Your task to perform on an android device: Show the shopping cart on newegg. Image 0: 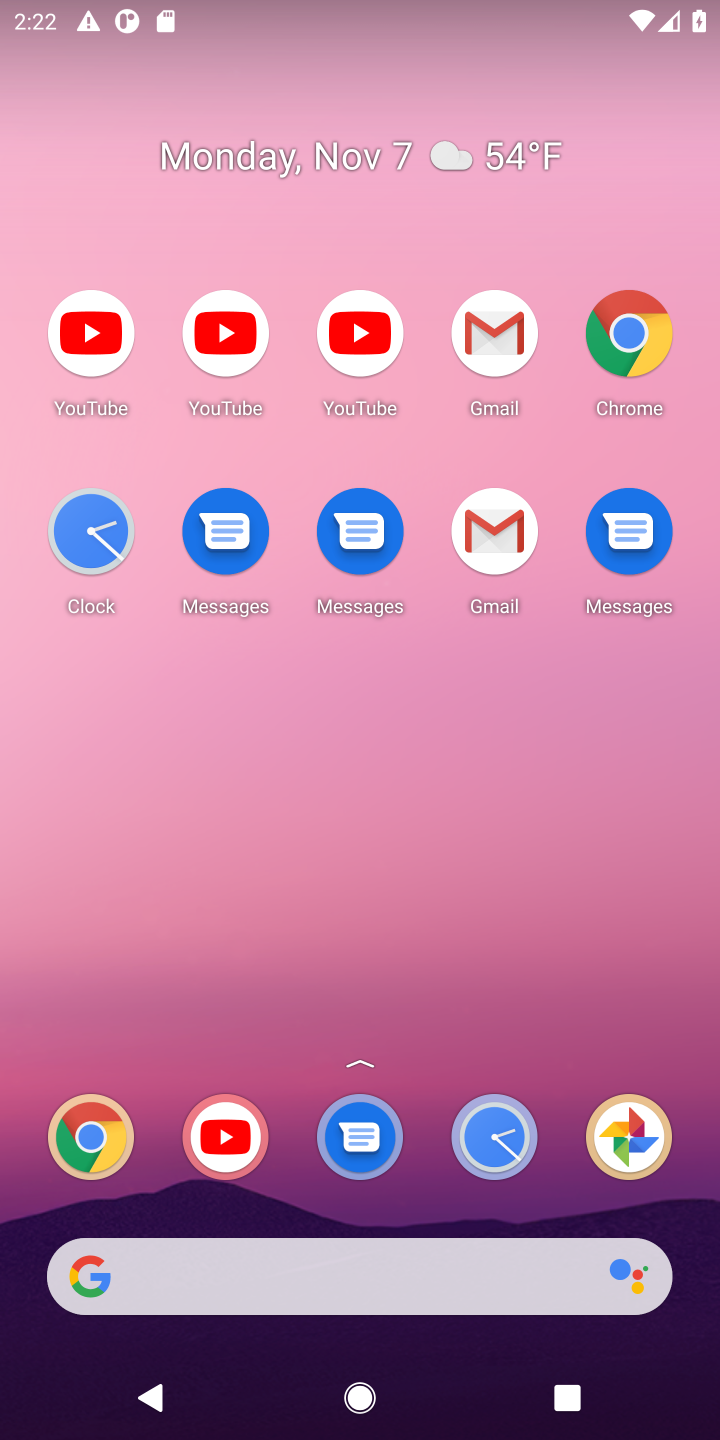
Step 0: drag from (415, 1153) to (412, 233)
Your task to perform on an android device: Show the shopping cart on newegg. Image 1: 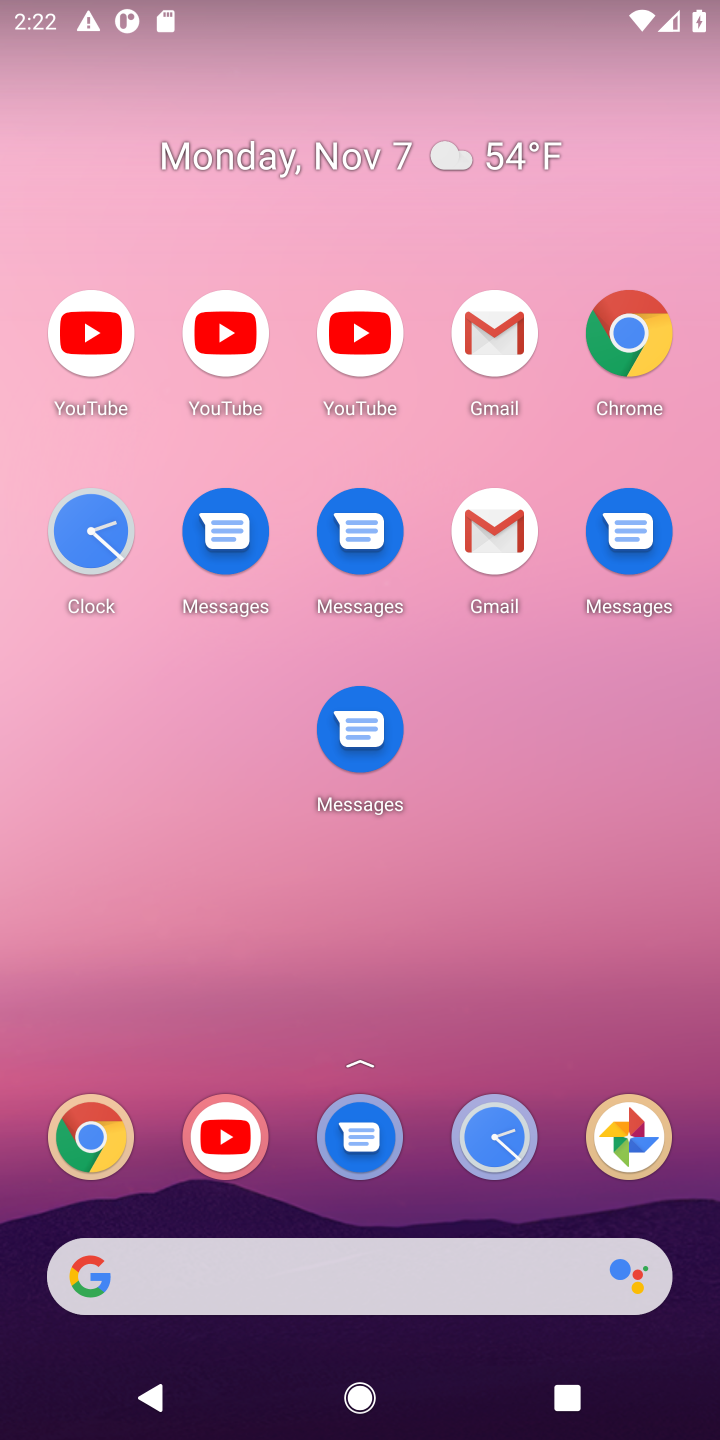
Step 1: drag from (363, 738) to (313, 110)
Your task to perform on an android device: Show the shopping cart on newegg. Image 2: 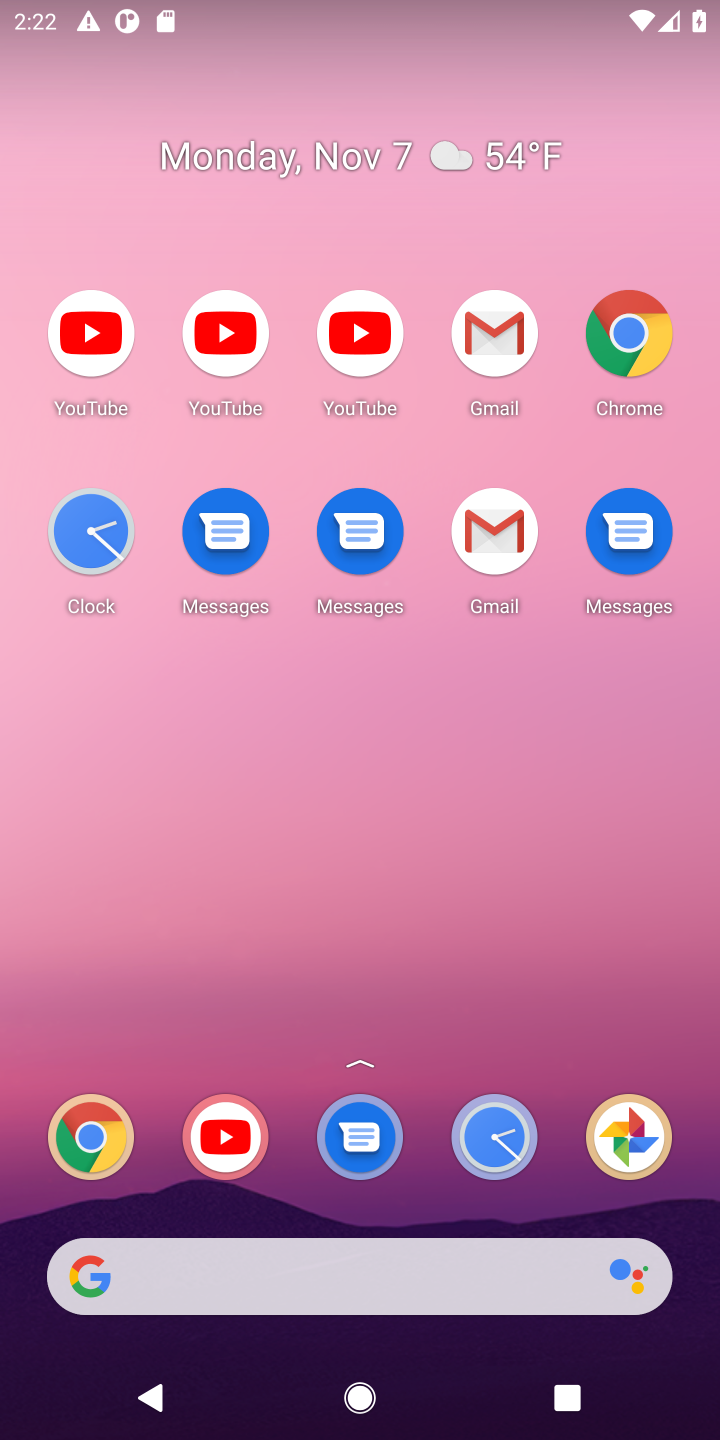
Step 2: drag from (431, 1190) to (414, 261)
Your task to perform on an android device: Show the shopping cart on newegg. Image 3: 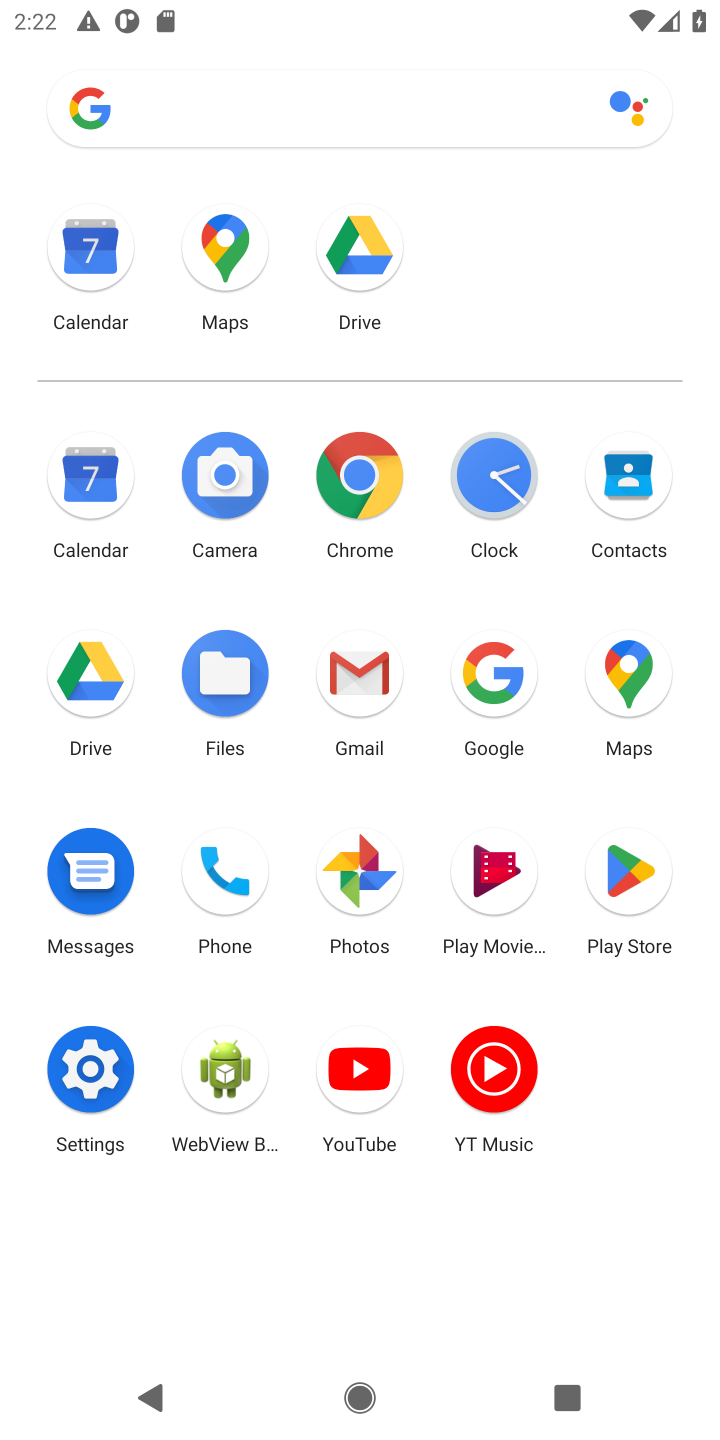
Step 3: click (354, 475)
Your task to perform on an android device: Show the shopping cart on newegg. Image 4: 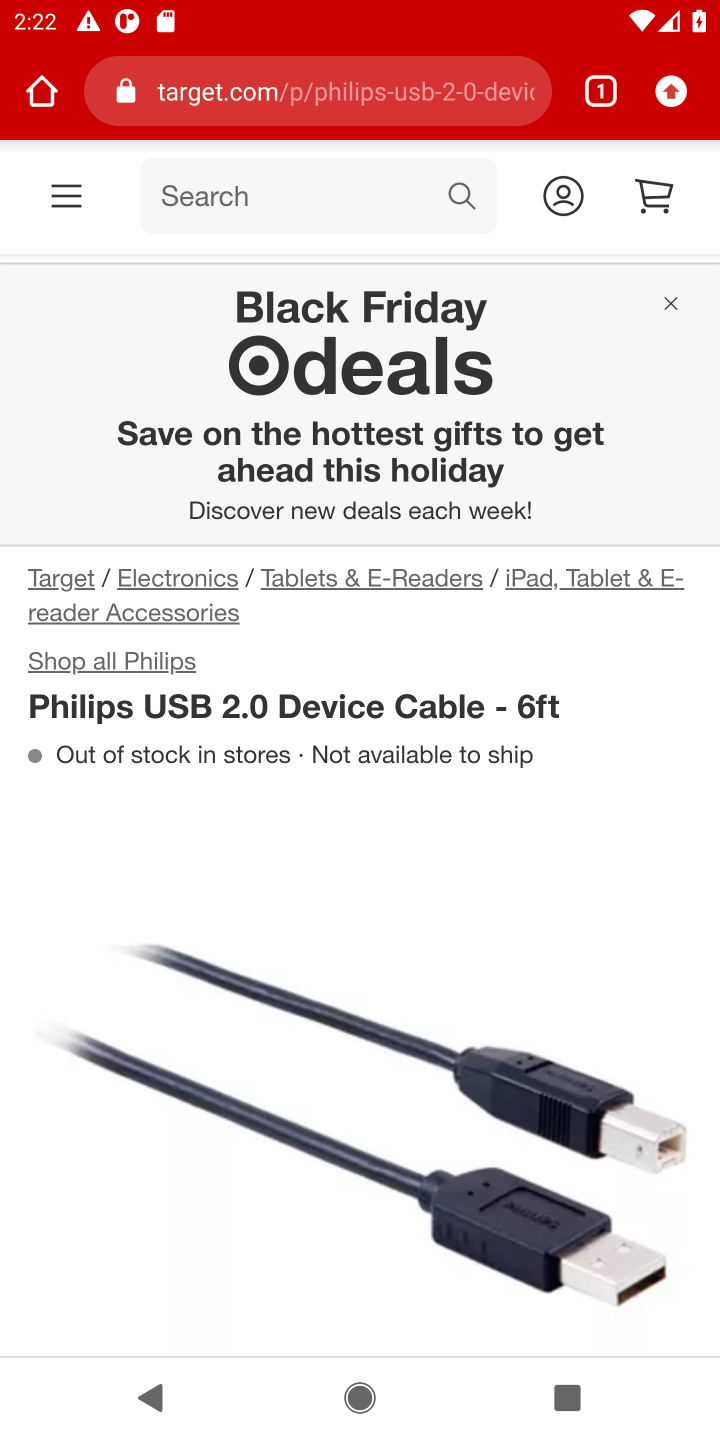
Step 4: click (430, 104)
Your task to perform on an android device: Show the shopping cart on newegg. Image 5: 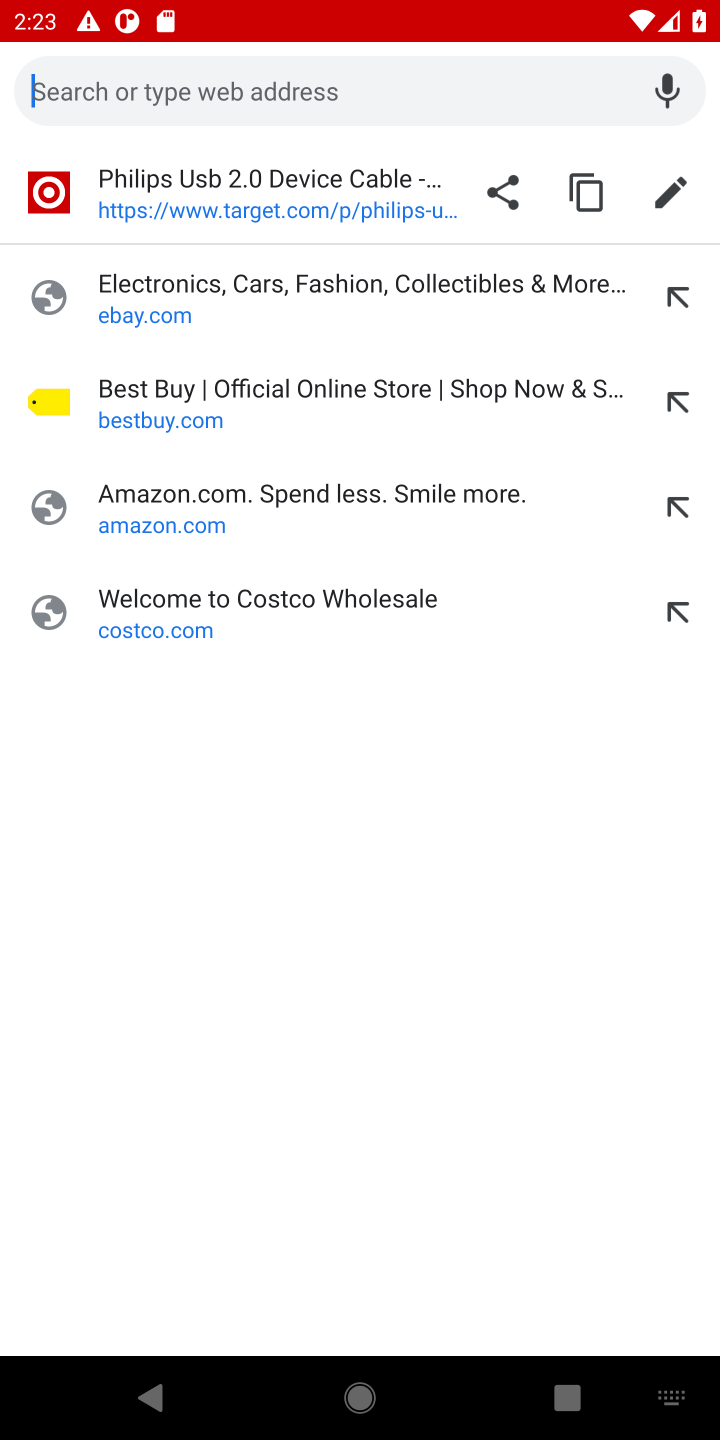
Step 5: type "newegg.com"
Your task to perform on an android device: Show the shopping cart on newegg. Image 6: 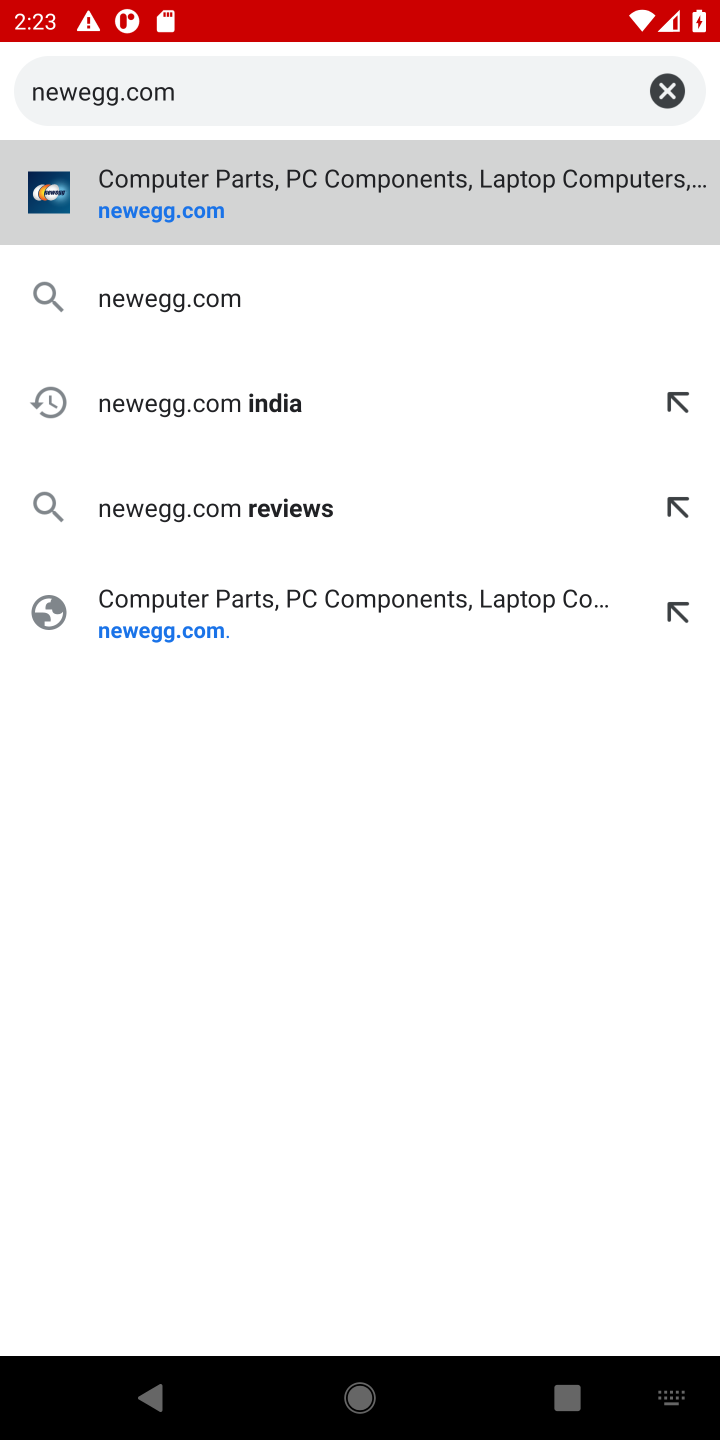
Step 6: press enter
Your task to perform on an android device: Show the shopping cart on newegg. Image 7: 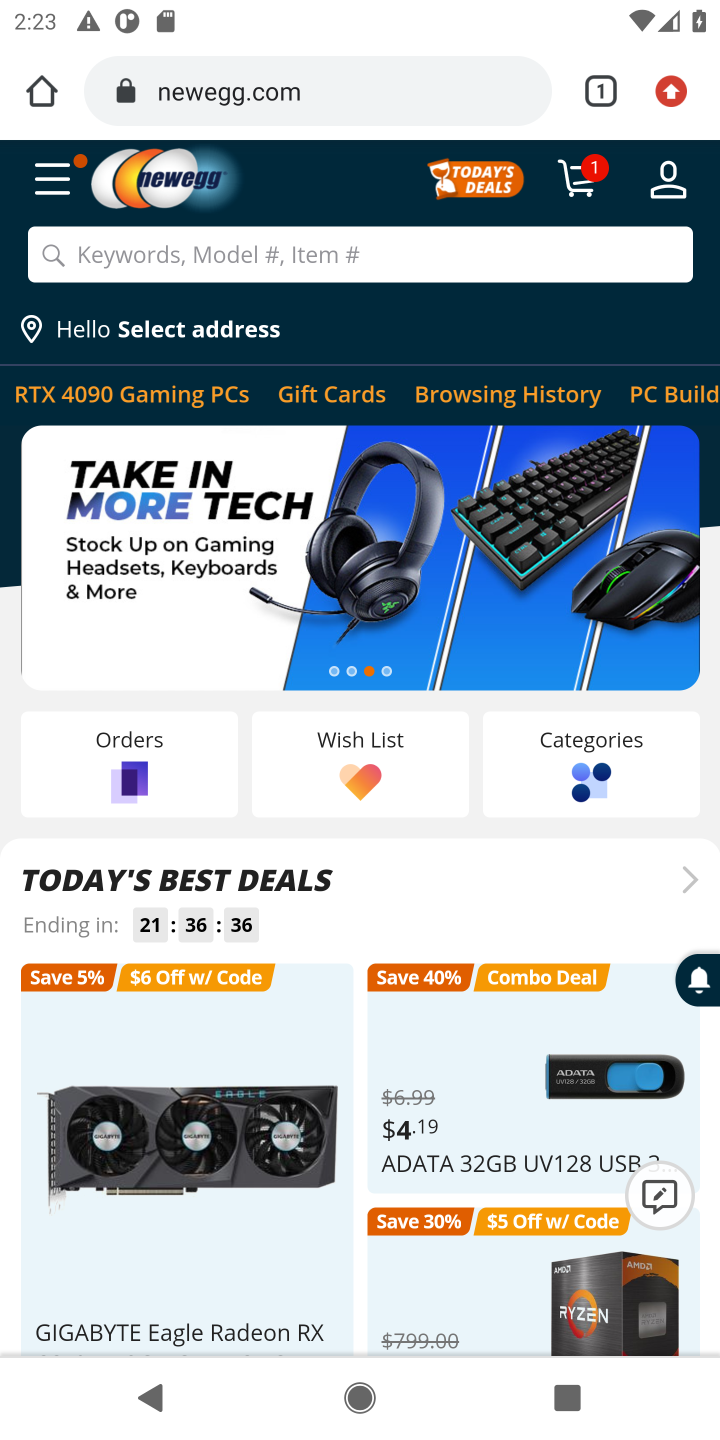
Step 7: click (582, 180)
Your task to perform on an android device: Show the shopping cart on newegg. Image 8: 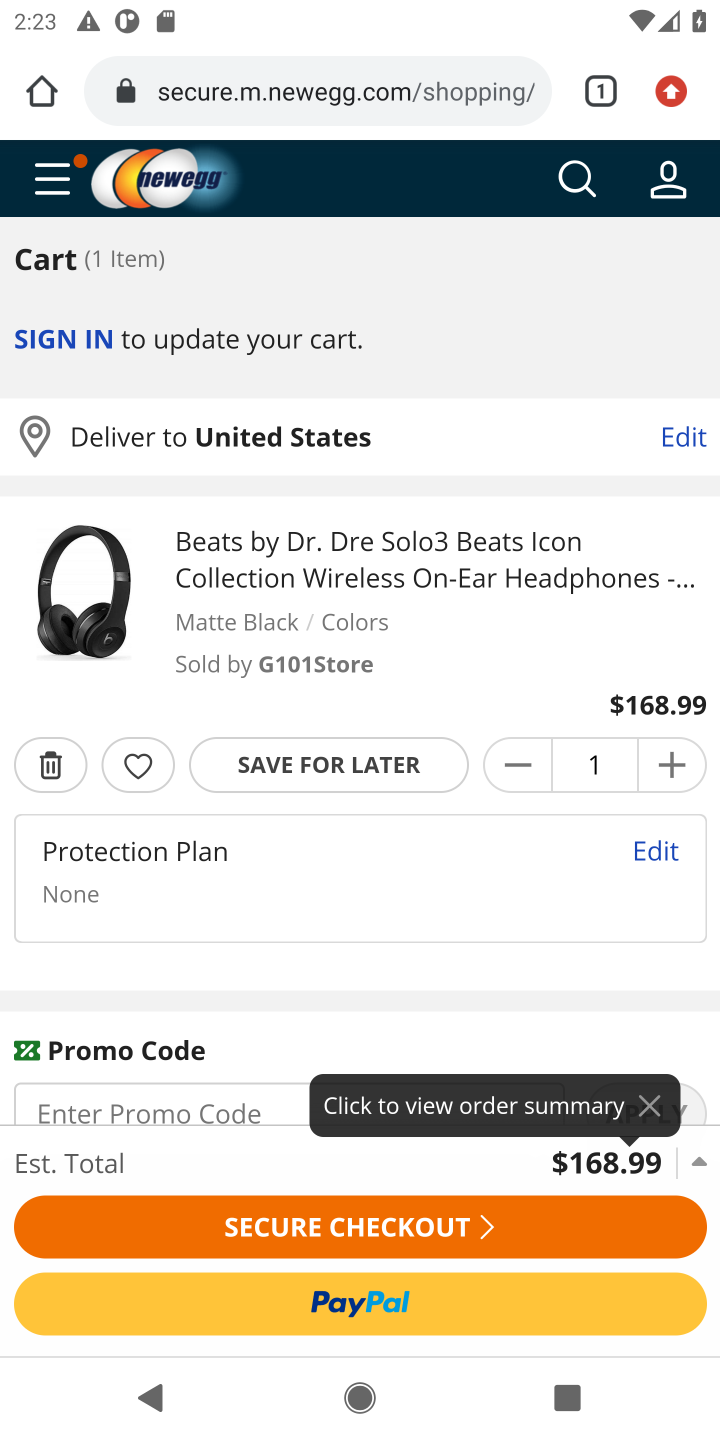
Step 8: task complete